Your task to perform on an android device: Search for vegetarian restaurants on Maps Image 0: 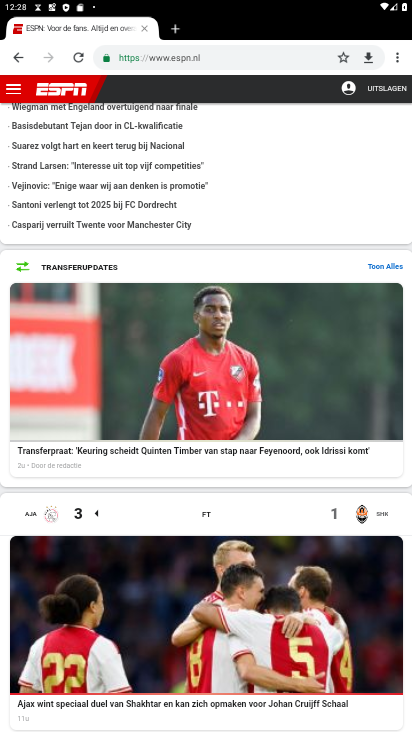
Step 0: press home button
Your task to perform on an android device: Search for vegetarian restaurants on Maps Image 1: 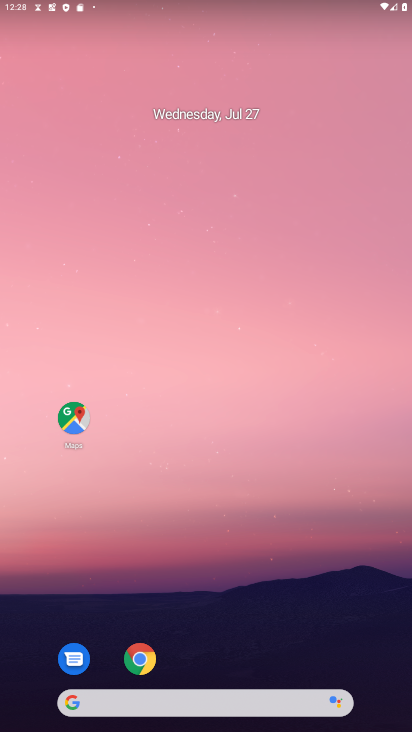
Step 1: click (69, 411)
Your task to perform on an android device: Search for vegetarian restaurants on Maps Image 2: 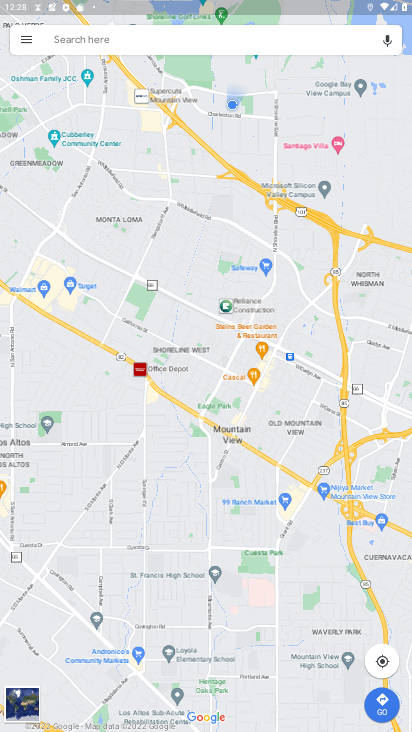
Step 2: click (88, 34)
Your task to perform on an android device: Search for vegetarian restaurants on Maps Image 3: 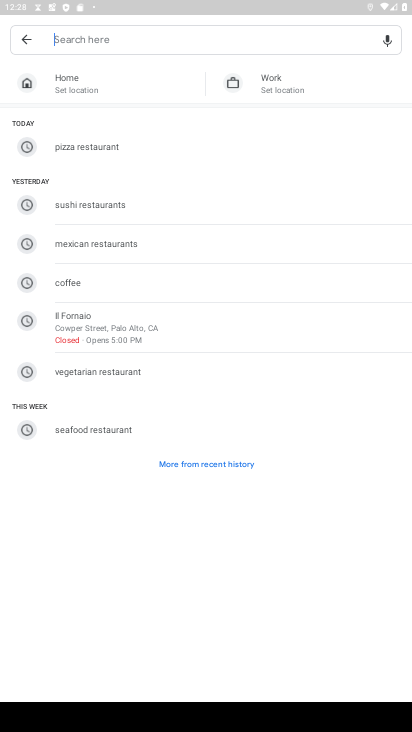
Step 3: click (100, 369)
Your task to perform on an android device: Search for vegetarian restaurants on Maps Image 4: 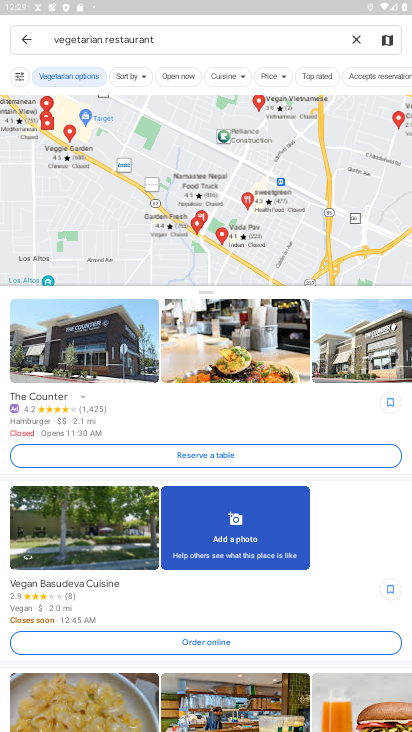
Step 4: task complete